Your task to perform on an android device: What's the weather? Image 0: 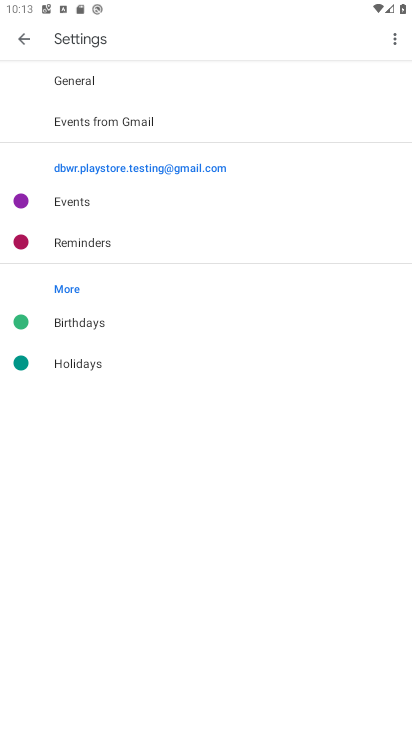
Step 0: press home button
Your task to perform on an android device: What's the weather? Image 1: 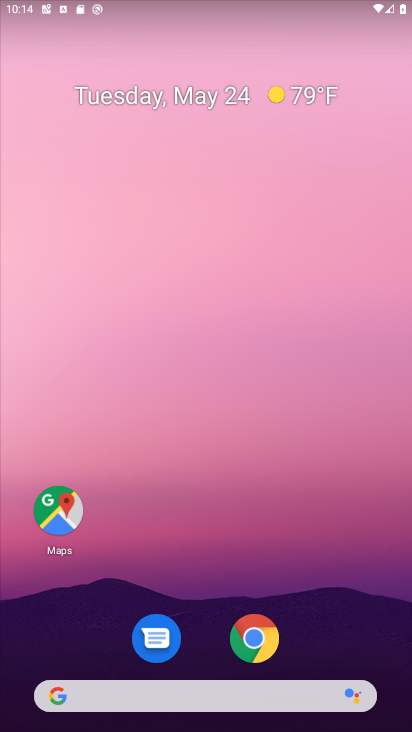
Step 1: drag from (220, 704) to (404, 726)
Your task to perform on an android device: What's the weather? Image 2: 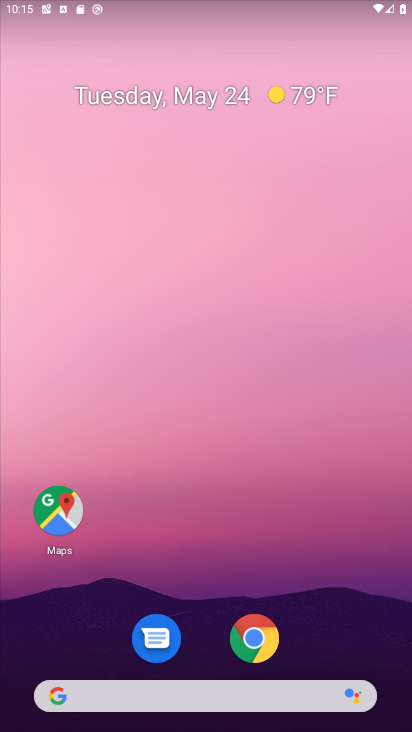
Step 2: click (276, 699)
Your task to perform on an android device: What's the weather? Image 3: 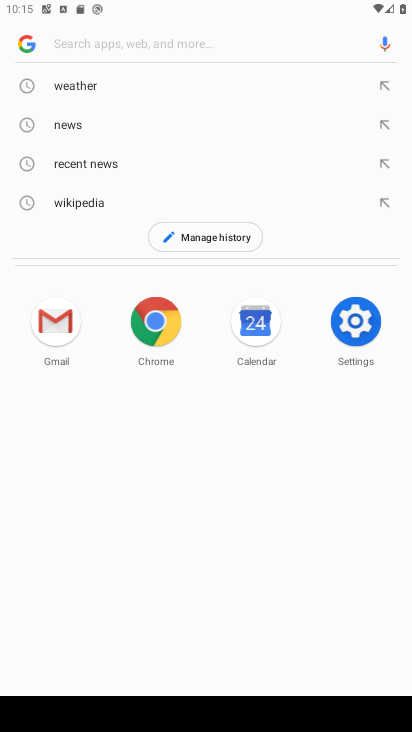
Step 3: click (102, 86)
Your task to perform on an android device: What's the weather? Image 4: 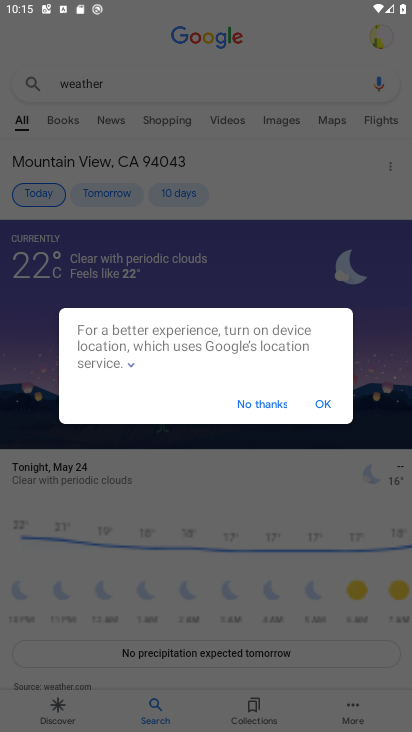
Step 4: task complete